Your task to perform on an android device: Show me recent news Image 0: 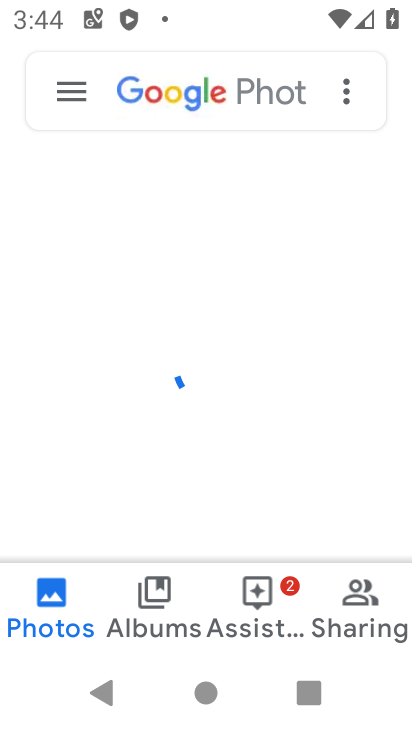
Step 0: press home button
Your task to perform on an android device: Show me recent news Image 1: 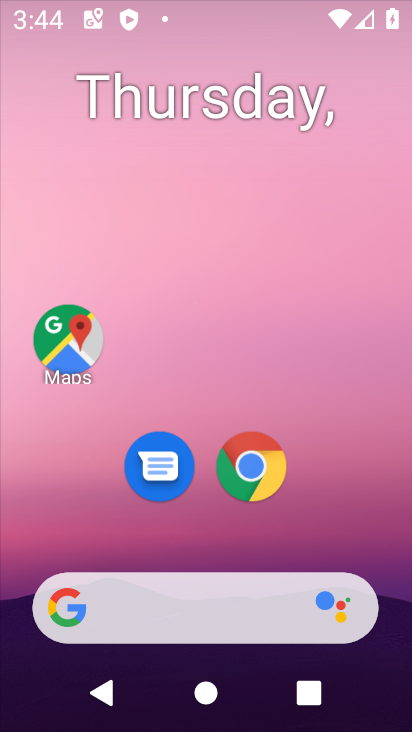
Step 1: drag from (224, 587) to (408, 139)
Your task to perform on an android device: Show me recent news Image 2: 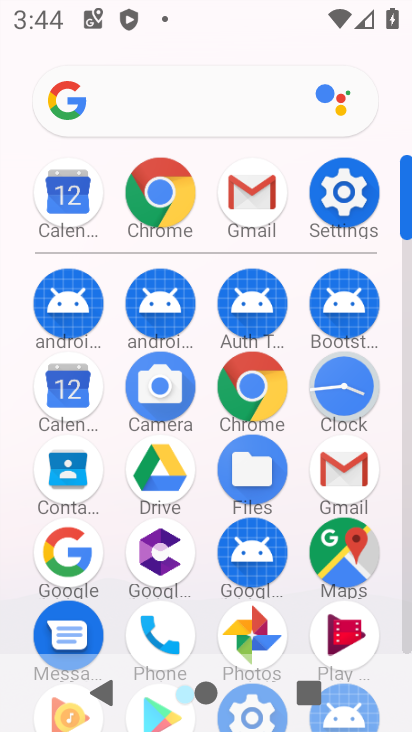
Step 2: click (266, 389)
Your task to perform on an android device: Show me recent news Image 3: 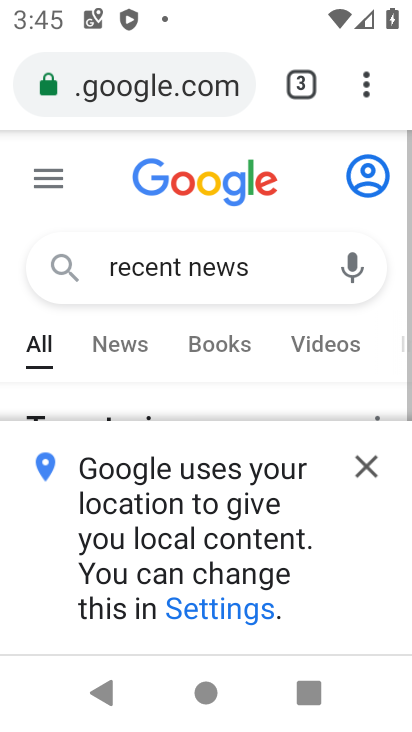
Step 3: click (364, 462)
Your task to perform on an android device: Show me recent news Image 4: 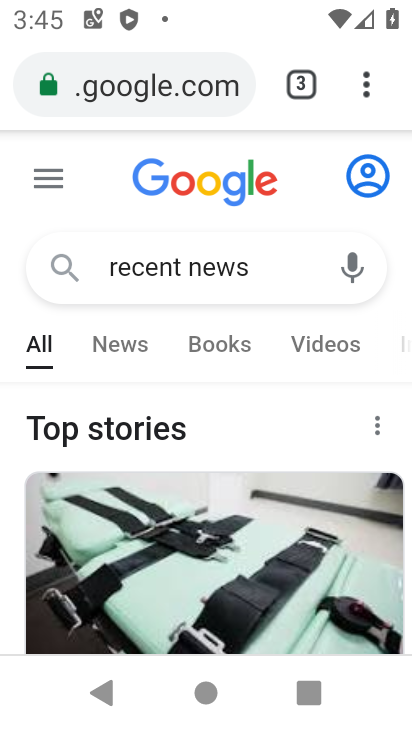
Step 4: task complete